Your task to perform on an android device: Open CNN.com Image 0: 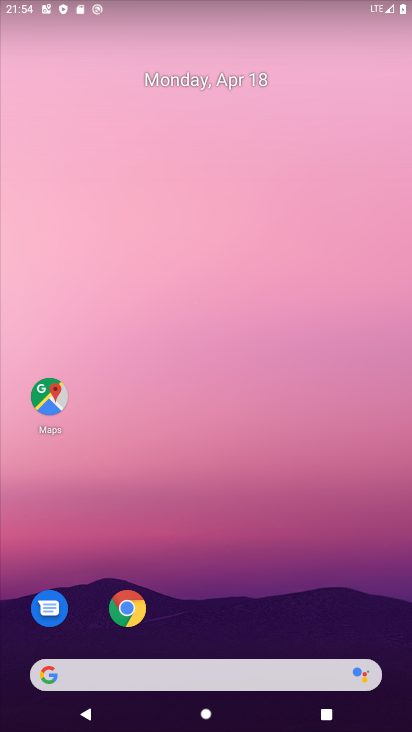
Step 0: click (126, 610)
Your task to perform on an android device: Open CNN.com Image 1: 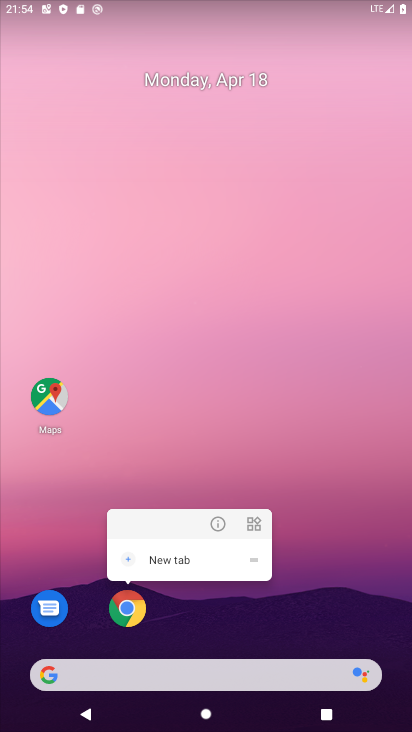
Step 1: click (134, 609)
Your task to perform on an android device: Open CNN.com Image 2: 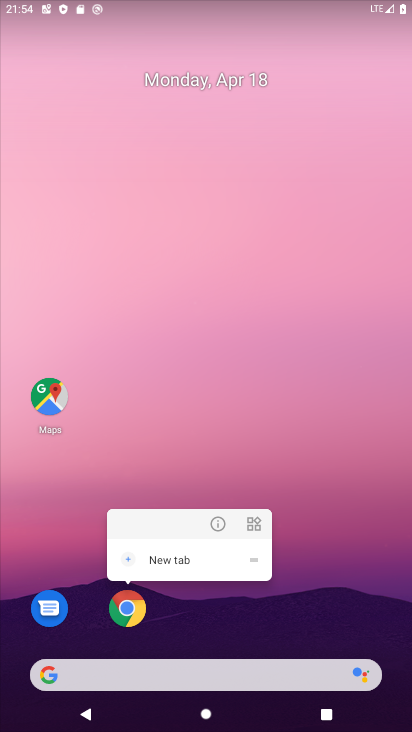
Step 2: click (123, 620)
Your task to perform on an android device: Open CNN.com Image 3: 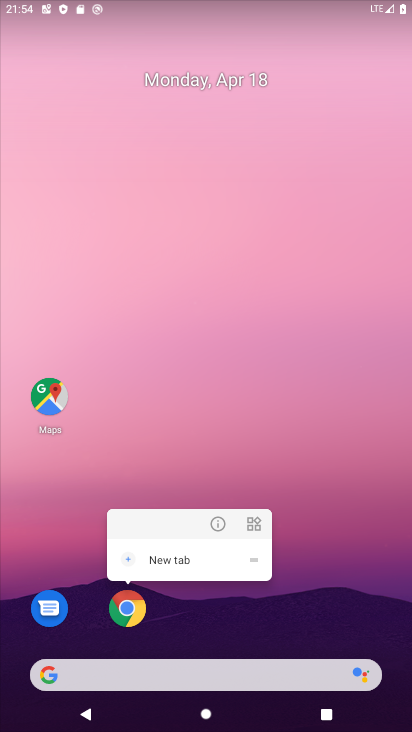
Step 3: click (128, 608)
Your task to perform on an android device: Open CNN.com Image 4: 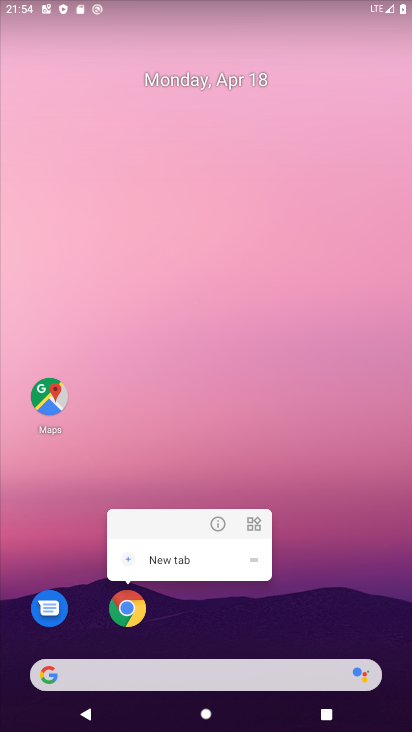
Step 4: click (131, 599)
Your task to perform on an android device: Open CNN.com Image 5: 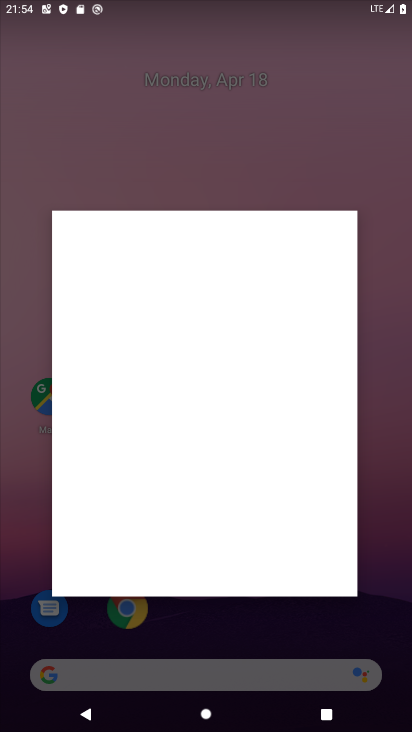
Step 5: click (133, 615)
Your task to perform on an android device: Open CNN.com Image 6: 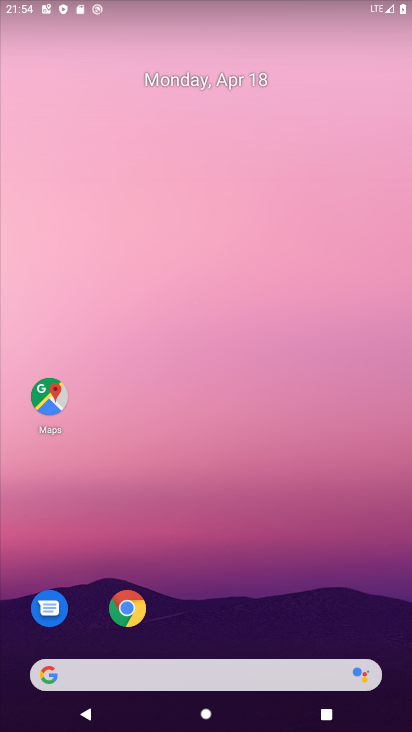
Step 6: click (134, 607)
Your task to perform on an android device: Open CNN.com Image 7: 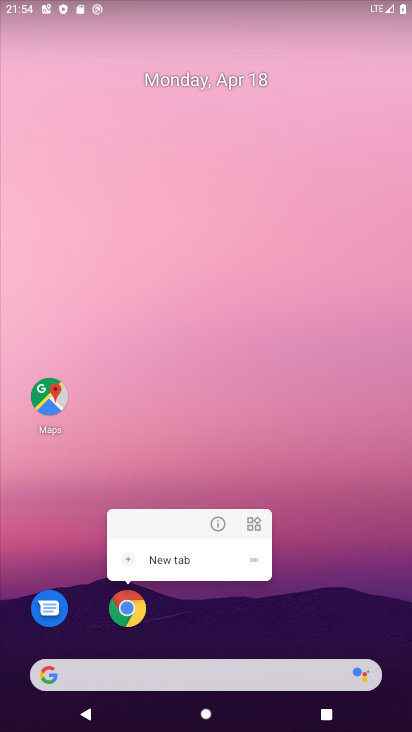
Step 7: click (121, 621)
Your task to perform on an android device: Open CNN.com Image 8: 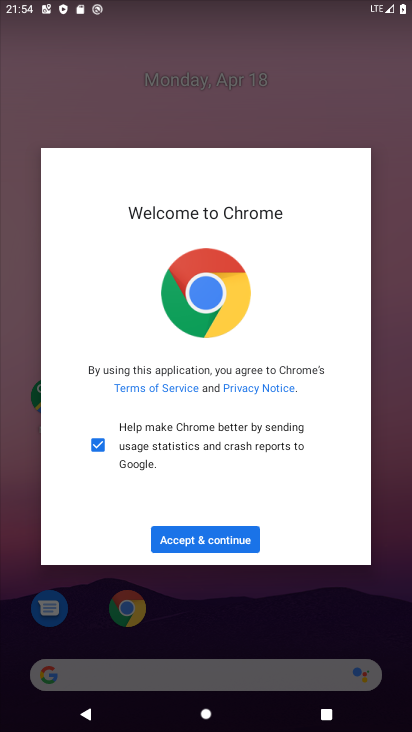
Step 8: click (207, 538)
Your task to perform on an android device: Open CNN.com Image 9: 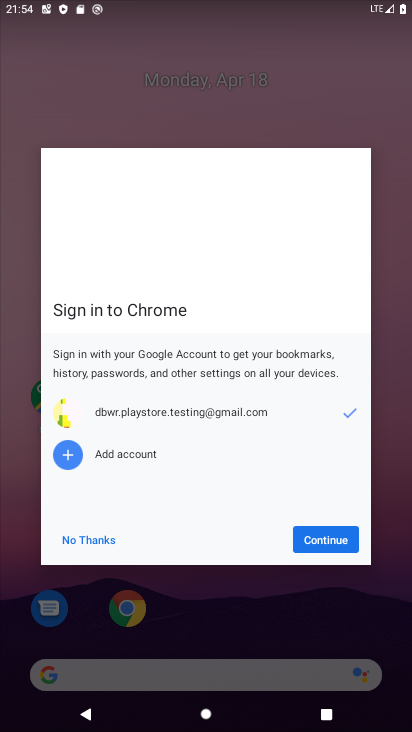
Step 9: click (328, 544)
Your task to perform on an android device: Open CNN.com Image 10: 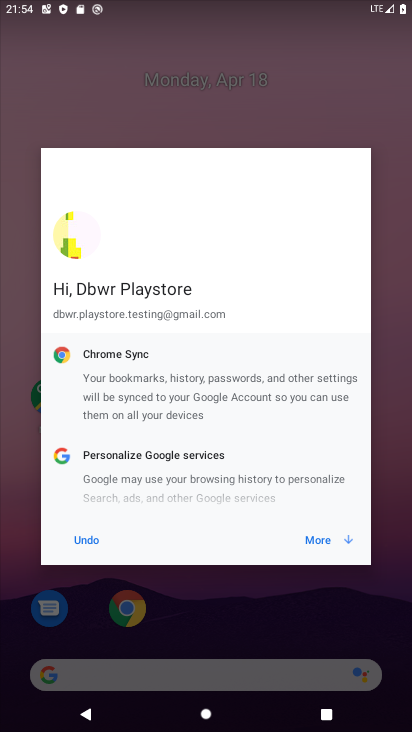
Step 10: click (321, 536)
Your task to perform on an android device: Open CNN.com Image 11: 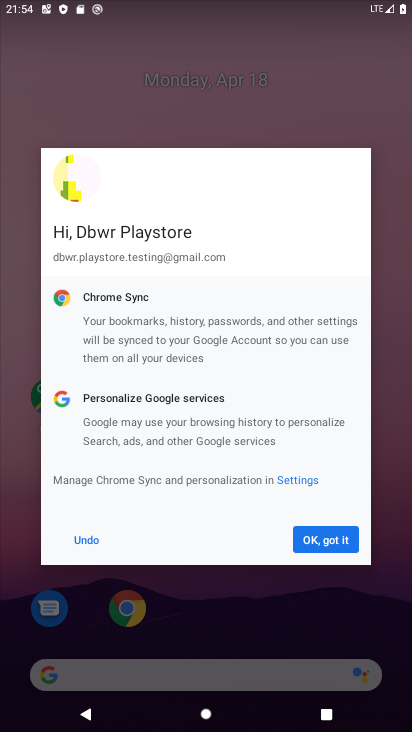
Step 11: click (324, 535)
Your task to perform on an android device: Open CNN.com Image 12: 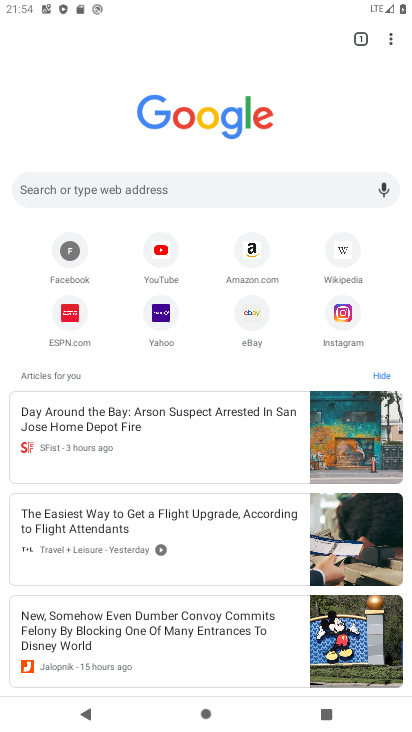
Step 12: click (198, 188)
Your task to perform on an android device: Open CNN.com Image 13: 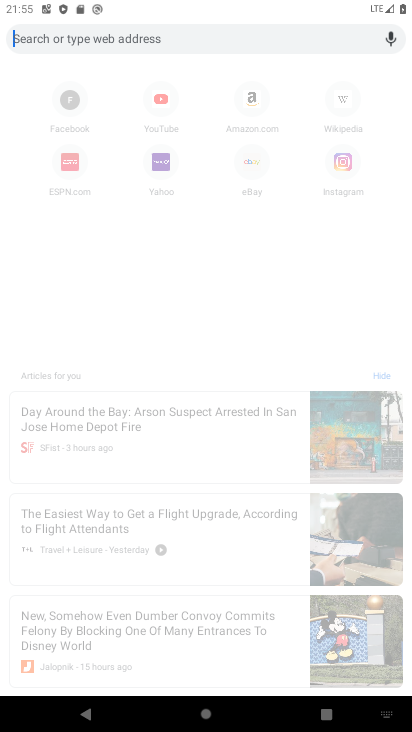
Step 13: type "CNN.com"
Your task to perform on an android device: Open CNN.com Image 14: 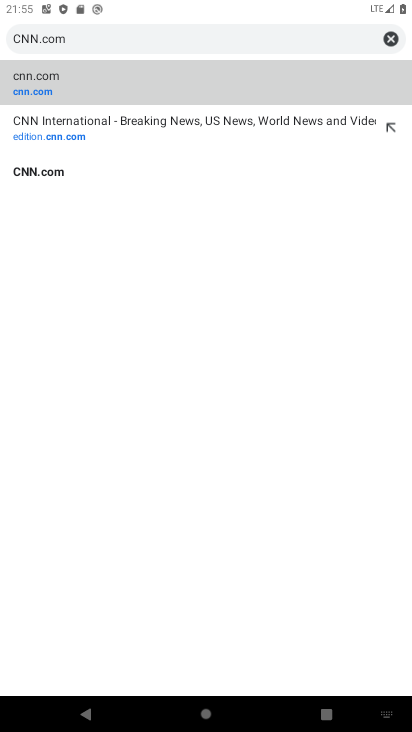
Step 14: click (139, 85)
Your task to perform on an android device: Open CNN.com Image 15: 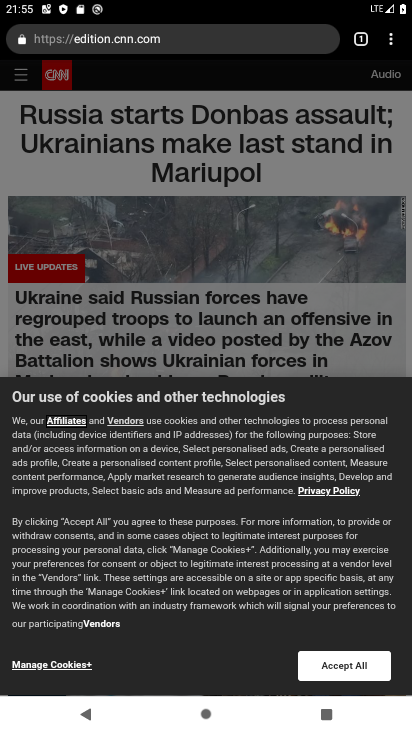
Step 15: task complete